Your task to perform on an android device: Open Google Chrome and click the shortcut for Amazon.com Image 0: 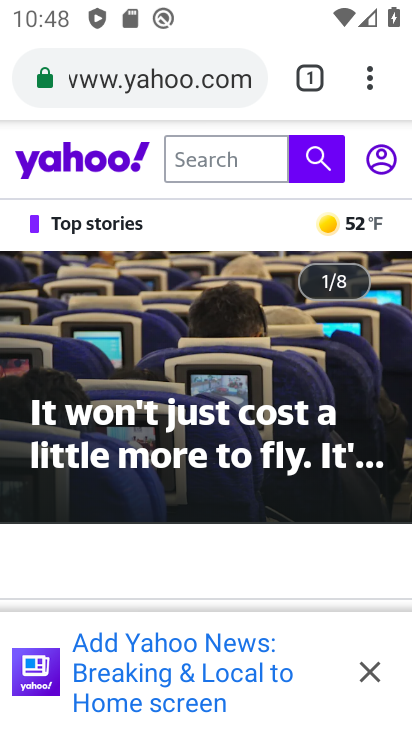
Step 0: click (304, 83)
Your task to perform on an android device: Open Google Chrome and click the shortcut for Amazon.com Image 1: 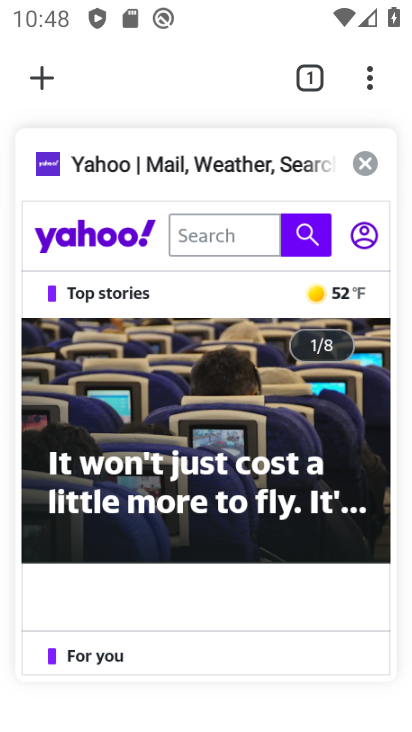
Step 1: click (39, 82)
Your task to perform on an android device: Open Google Chrome and click the shortcut for Amazon.com Image 2: 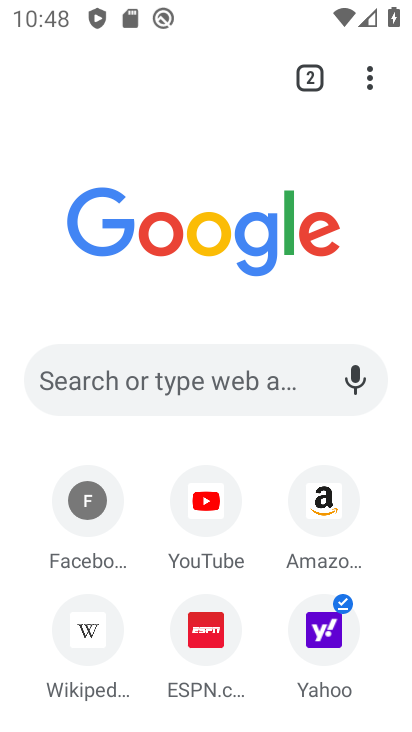
Step 2: click (316, 531)
Your task to perform on an android device: Open Google Chrome and click the shortcut for Amazon.com Image 3: 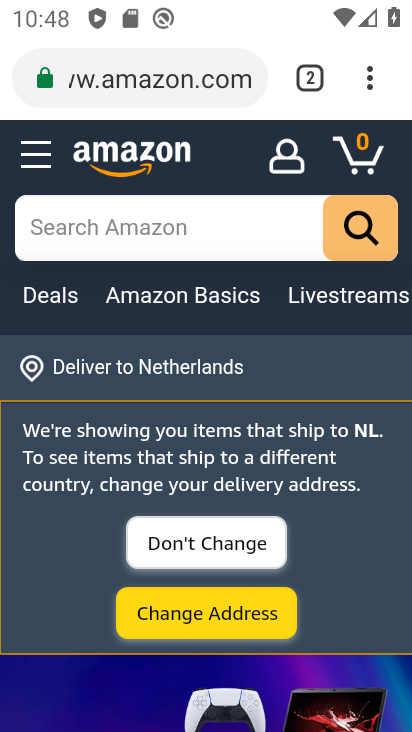
Step 3: task complete